Your task to perform on an android device: turn off location Image 0: 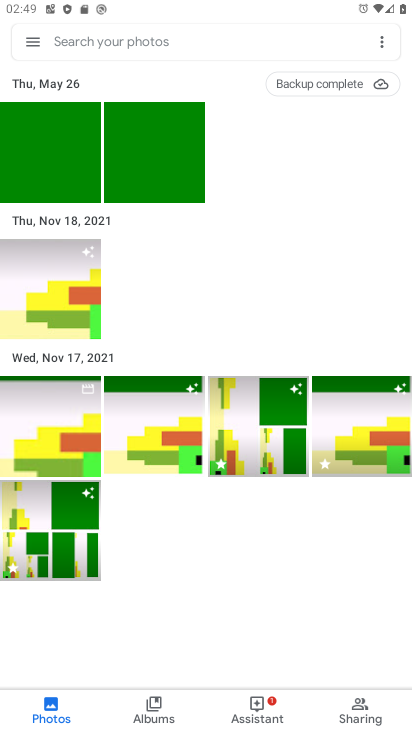
Step 0: press home button
Your task to perform on an android device: turn off location Image 1: 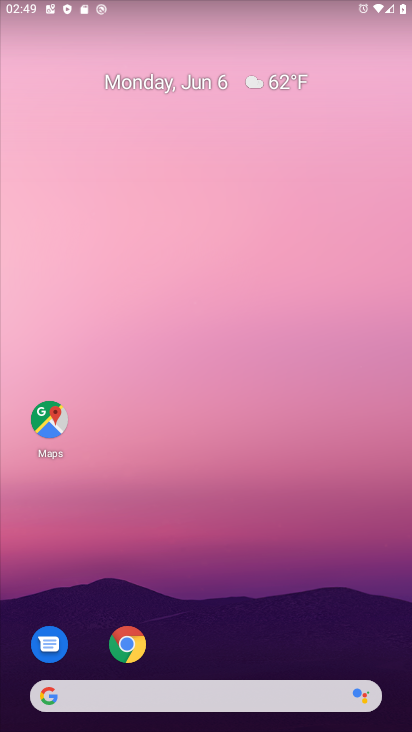
Step 1: drag from (158, 519) to (216, 34)
Your task to perform on an android device: turn off location Image 2: 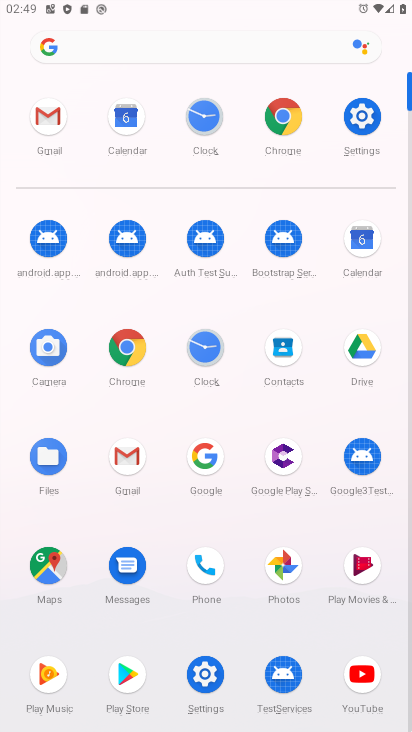
Step 2: click (363, 127)
Your task to perform on an android device: turn off location Image 3: 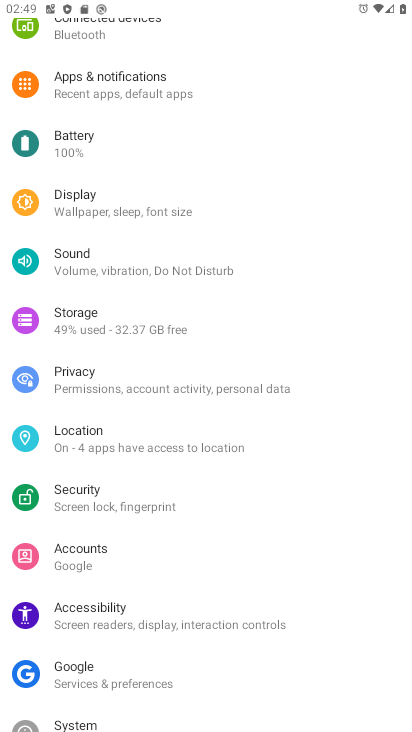
Step 3: click (100, 436)
Your task to perform on an android device: turn off location Image 4: 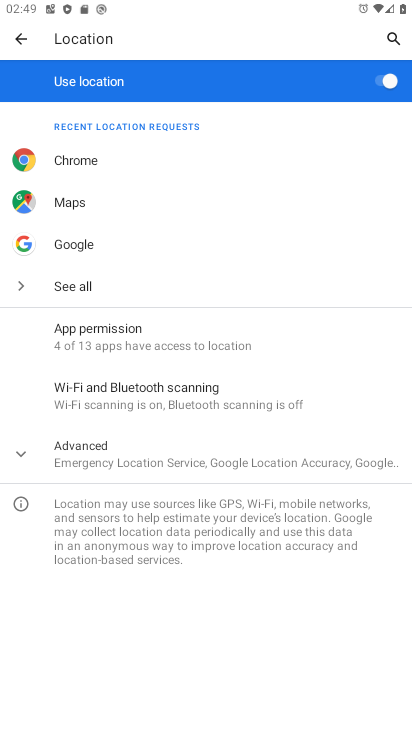
Step 4: click (393, 84)
Your task to perform on an android device: turn off location Image 5: 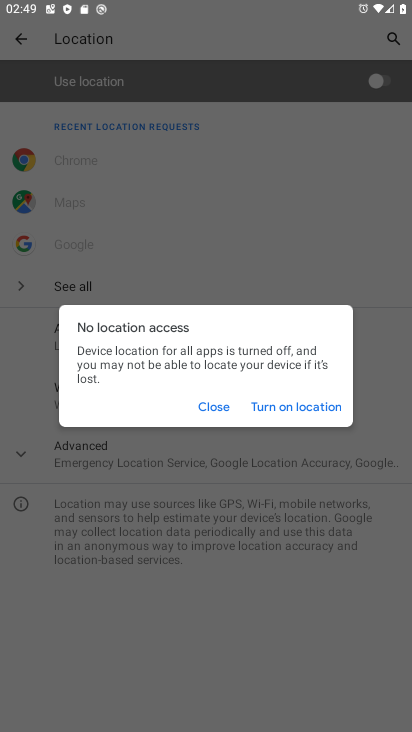
Step 5: click (215, 415)
Your task to perform on an android device: turn off location Image 6: 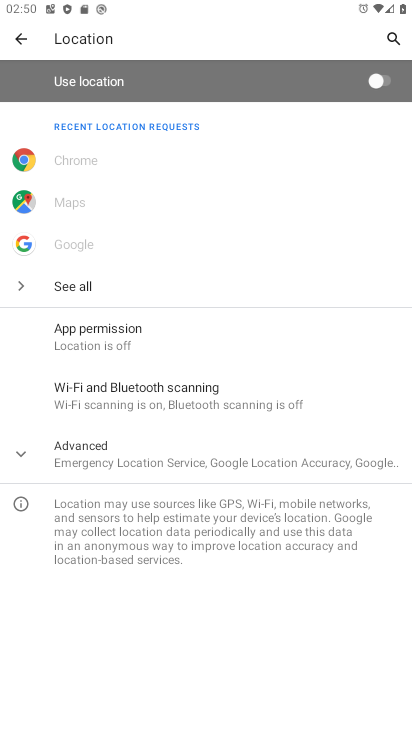
Step 6: task complete